Your task to perform on an android device: uninstall "Viber Messenger" Image 0: 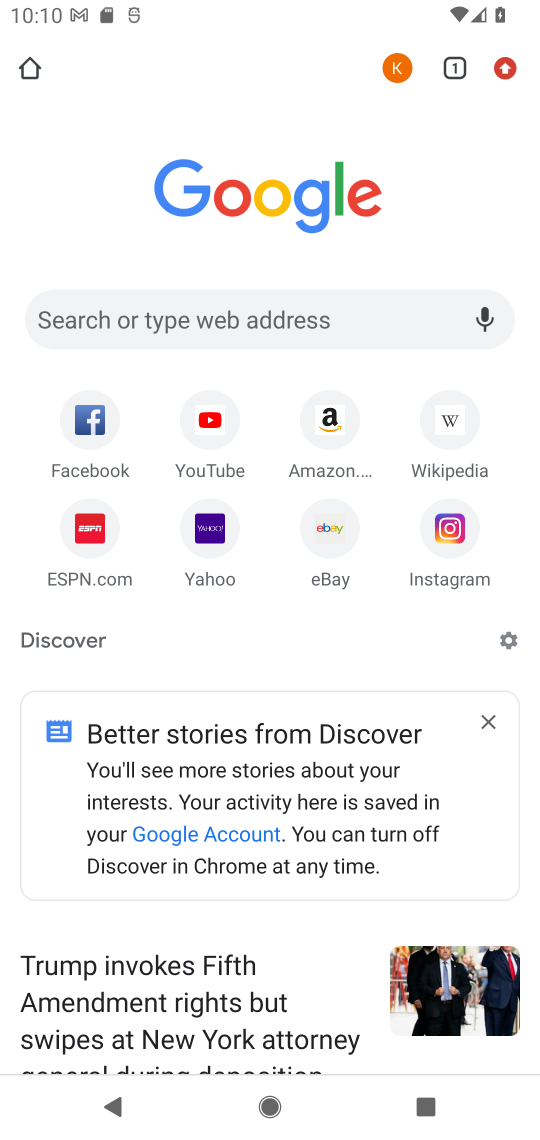
Step 0: press home button
Your task to perform on an android device: uninstall "Viber Messenger" Image 1: 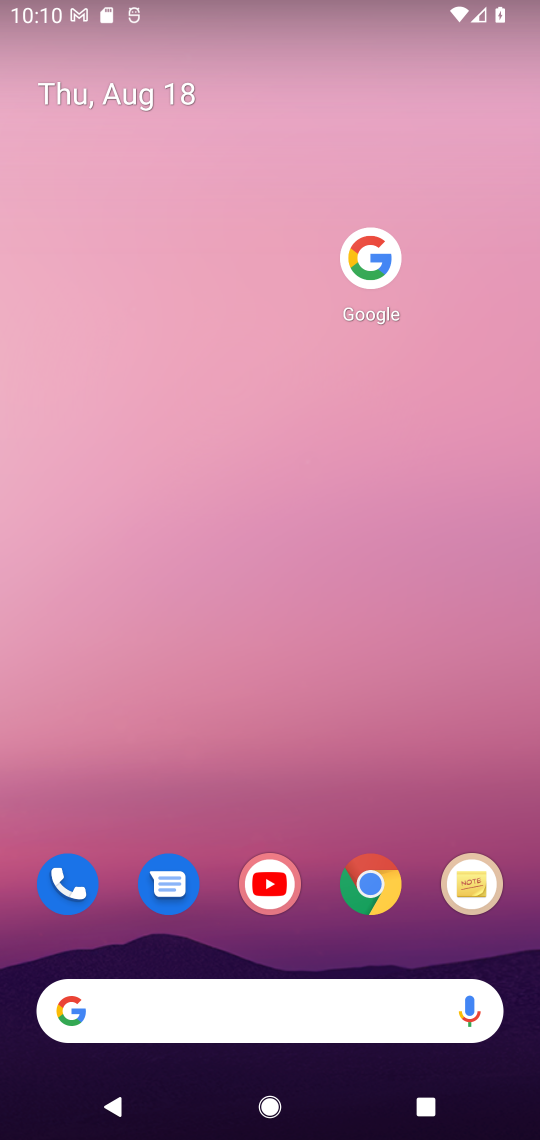
Step 1: drag from (211, 929) to (278, 253)
Your task to perform on an android device: uninstall "Viber Messenger" Image 2: 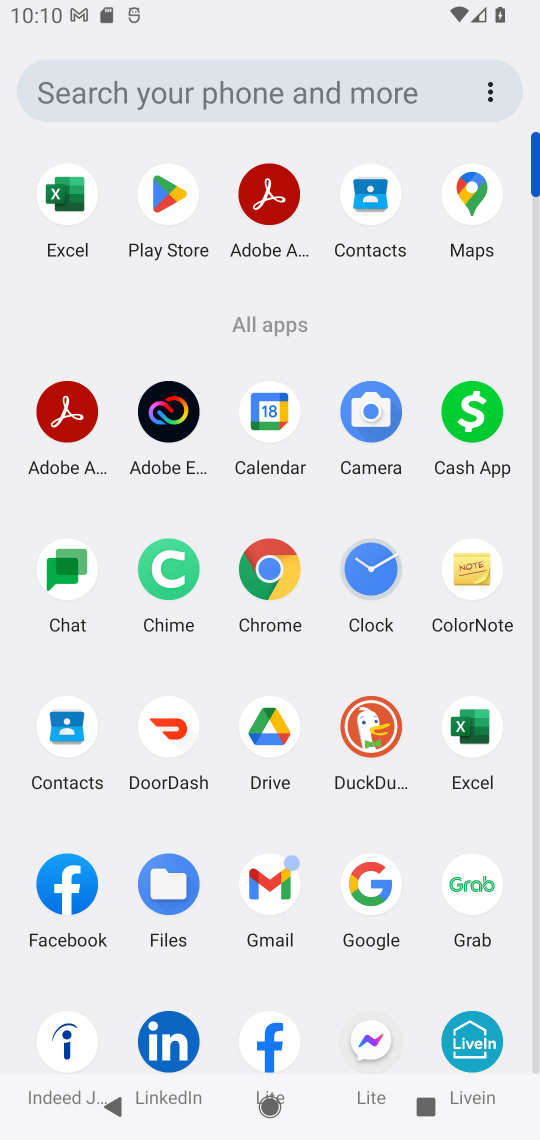
Step 2: drag from (326, 829) to (348, 382)
Your task to perform on an android device: uninstall "Viber Messenger" Image 3: 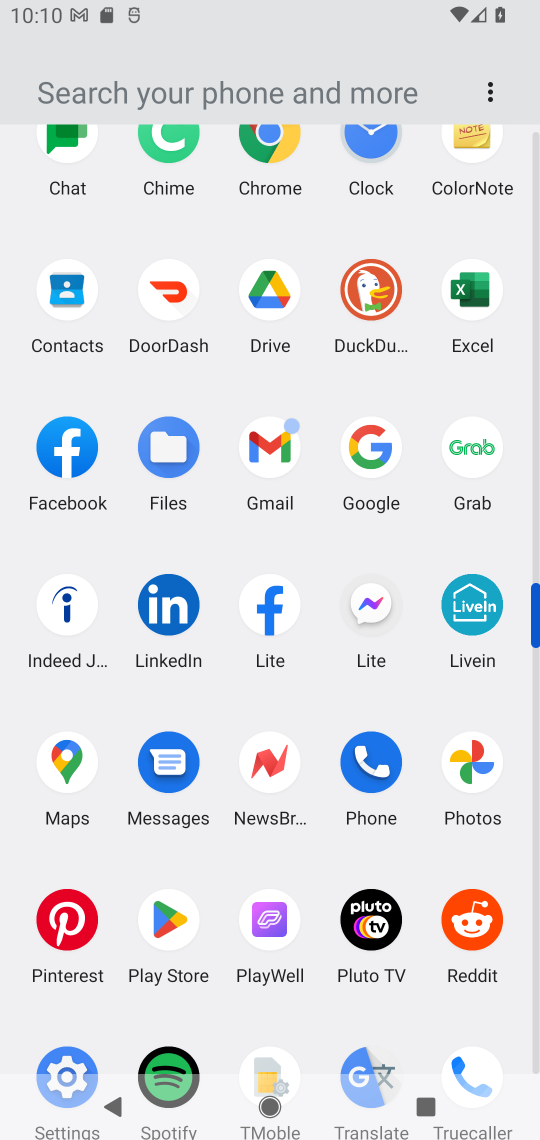
Step 3: drag from (316, 1059) to (396, 392)
Your task to perform on an android device: uninstall "Viber Messenger" Image 4: 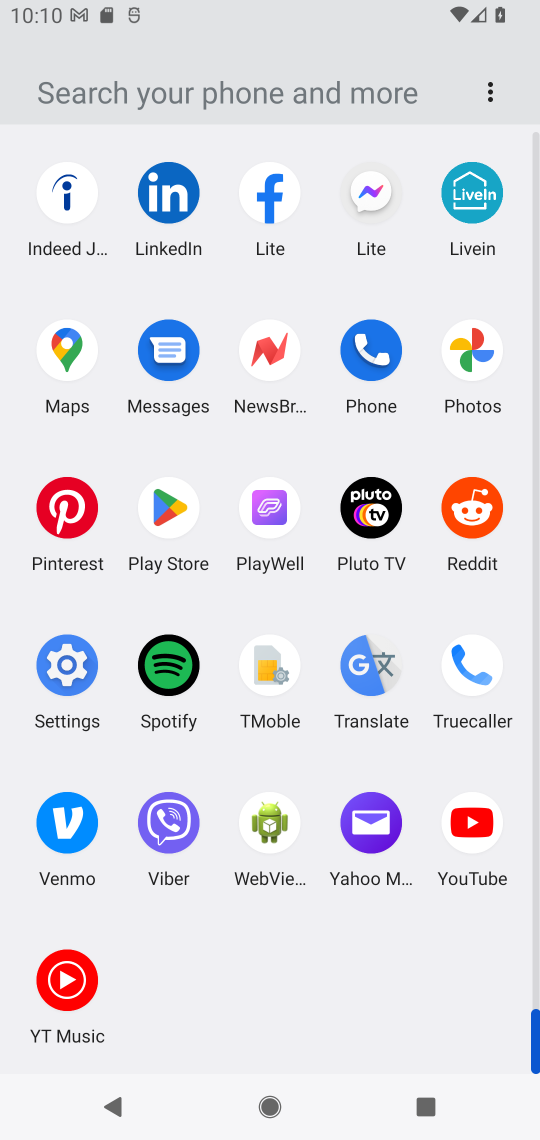
Step 4: click (187, 861)
Your task to perform on an android device: uninstall "Viber Messenger" Image 5: 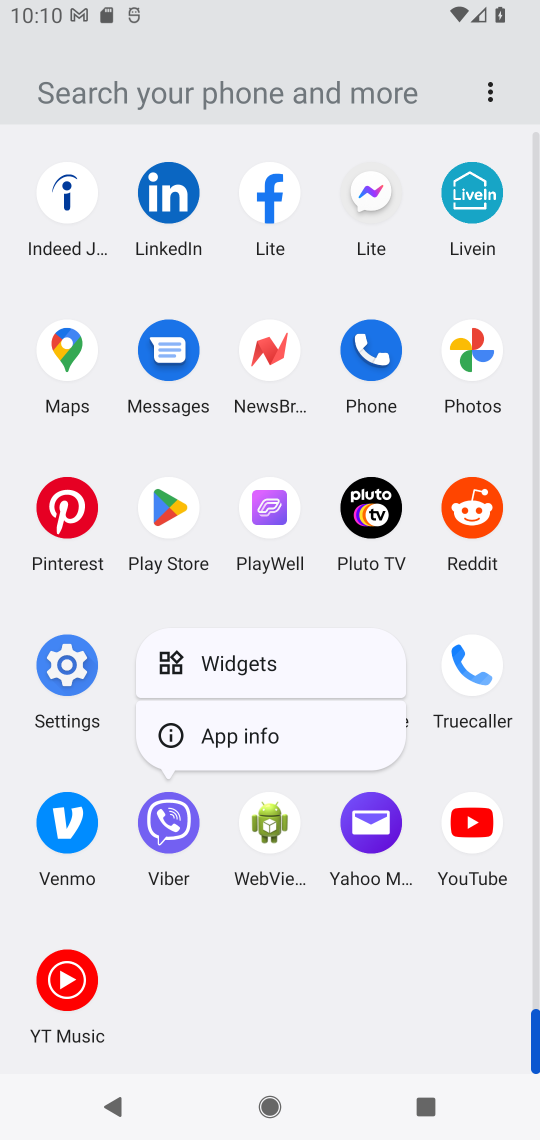
Step 5: click (195, 747)
Your task to perform on an android device: uninstall "Viber Messenger" Image 6: 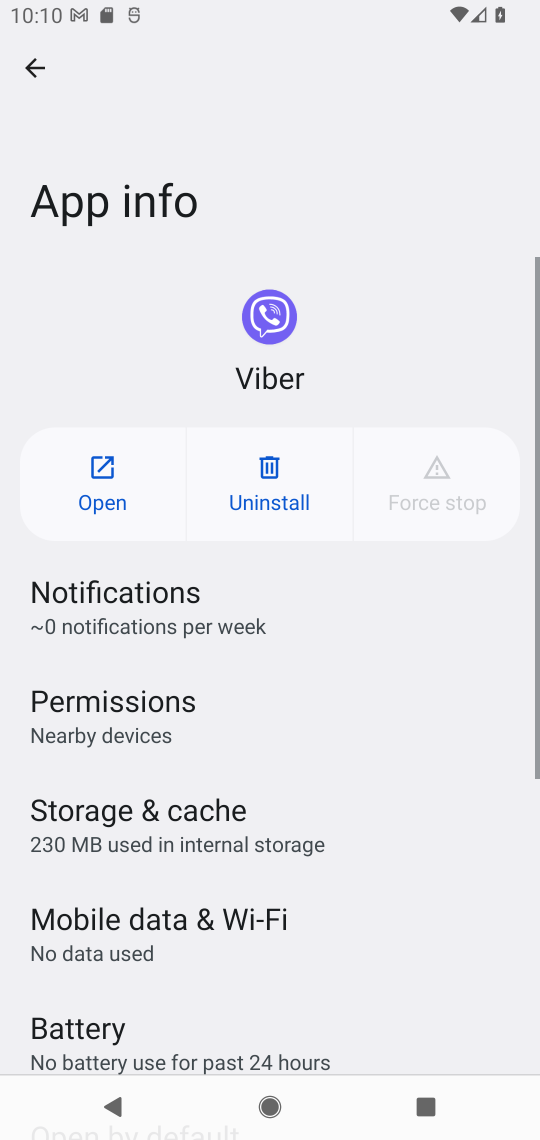
Step 6: click (248, 483)
Your task to perform on an android device: uninstall "Viber Messenger" Image 7: 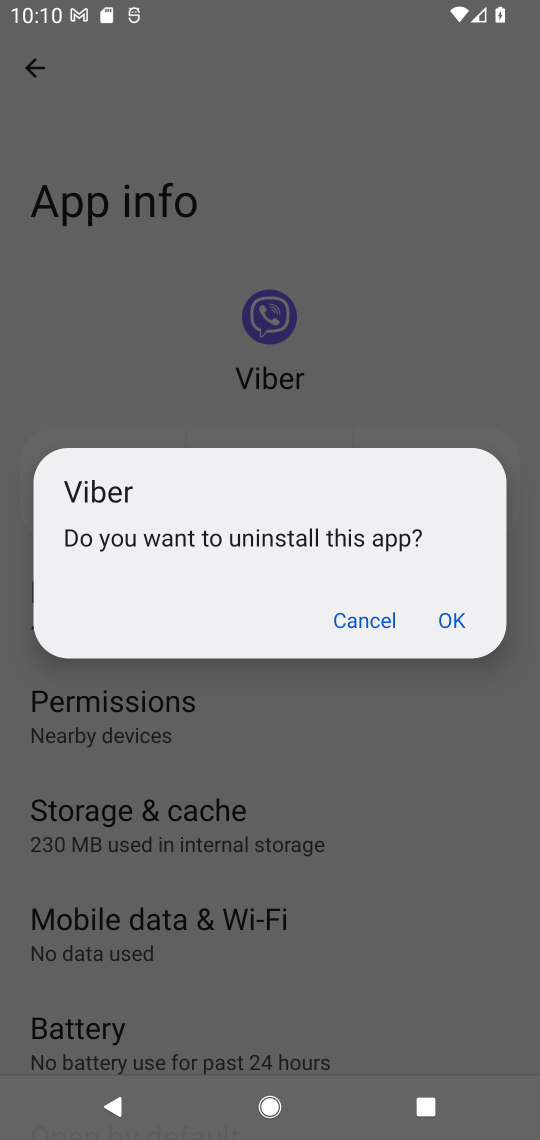
Step 7: click (461, 638)
Your task to perform on an android device: uninstall "Viber Messenger" Image 8: 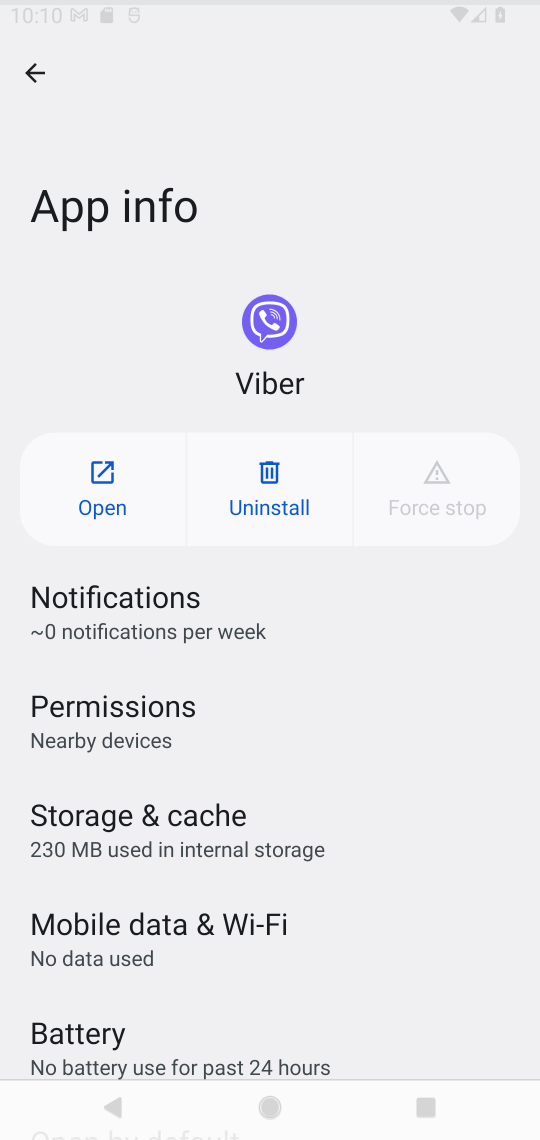
Step 8: task complete